Your task to perform on an android device: Open notification settings Image 0: 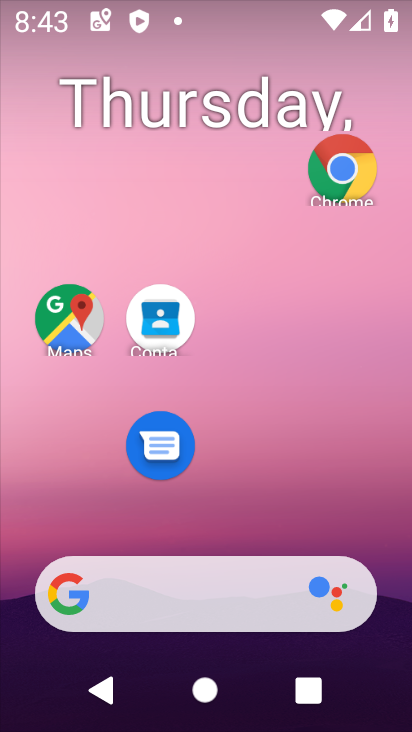
Step 0: drag from (260, 526) to (358, 156)
Your task to perform on an android device: Open notification settings Image 1: 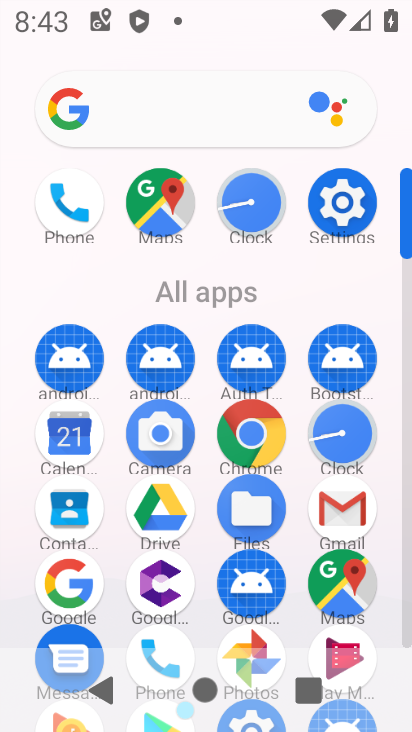
Step 1: click (345, 207)
Your task to perform on an android device: Open notification settings Image 2: 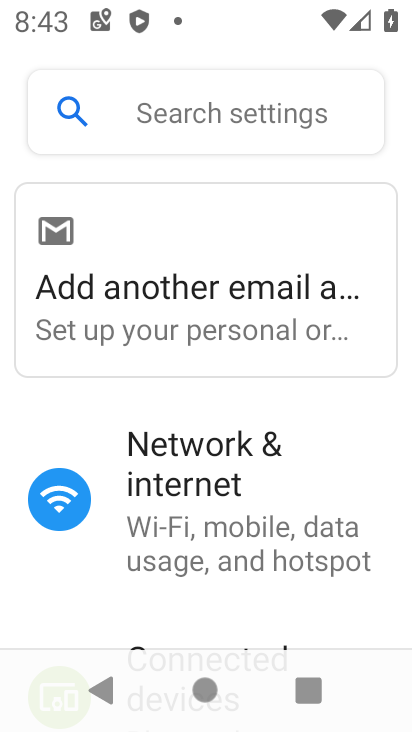
Step 2: click (204, 114)
Your task to perform on an android device: Open notification settings Image 3: 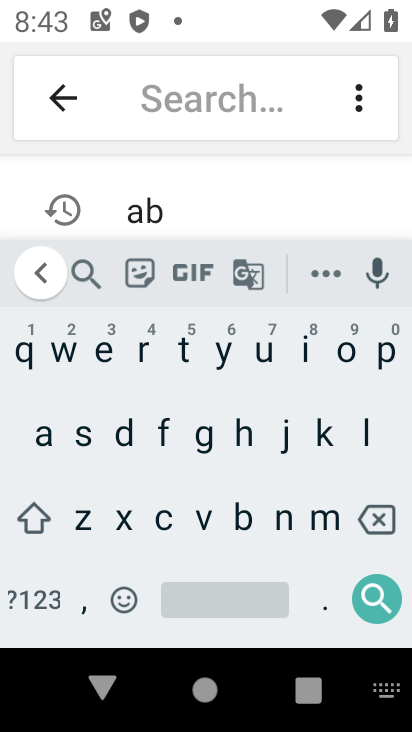
Step 3: click (282, 518)
Your task to perform on an android device: Open notification settings Image 4: 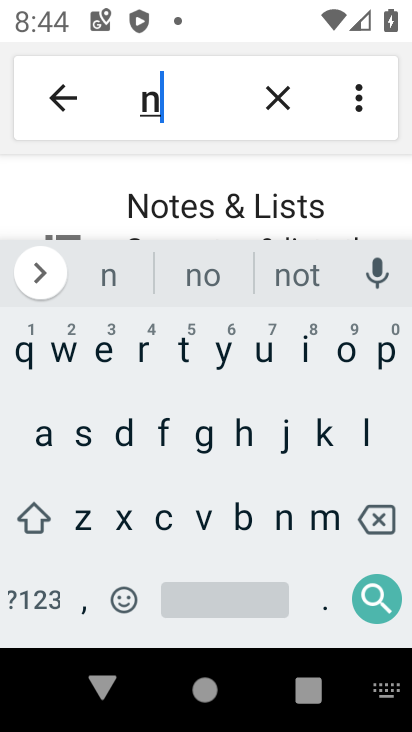
Step 4: click (345, 355)
Your task to perform on an android device: Open notification settings Image 5: 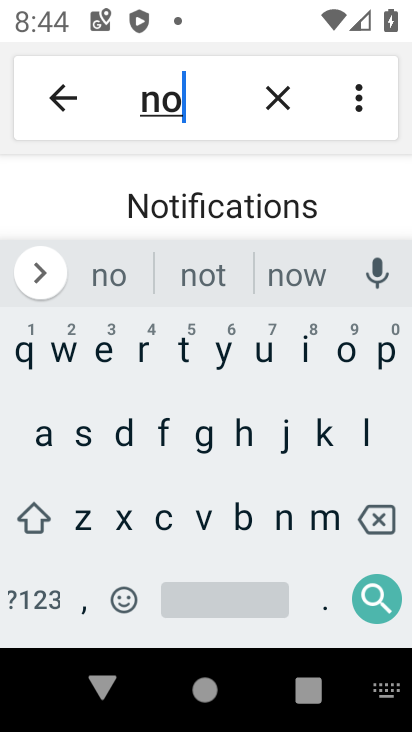
Step 5: click (221, 197)
Your task to perform on an android device: Open notification settings Image 6: 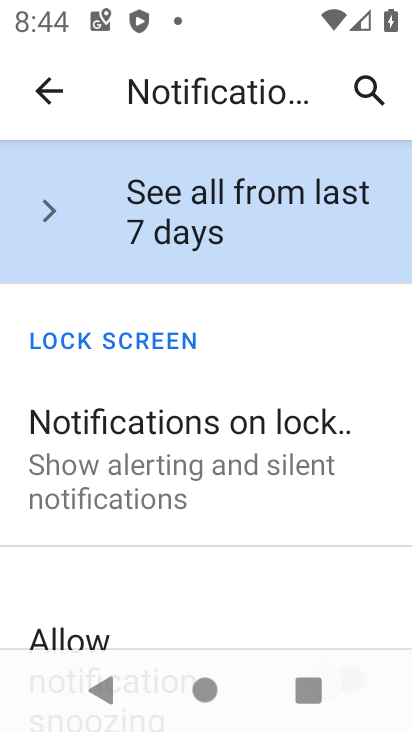
Step 6: click (159, 461)
Your task to perform on an android device: Open notification settings Image 7: 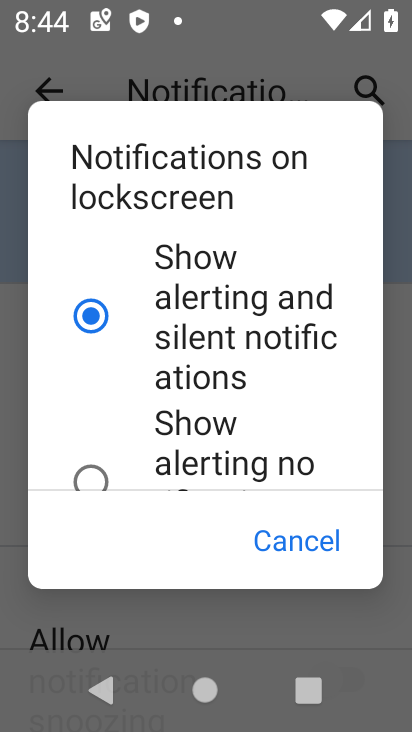
Step 7: task complete